Your task to perform on an android device: add a contact Image 0: 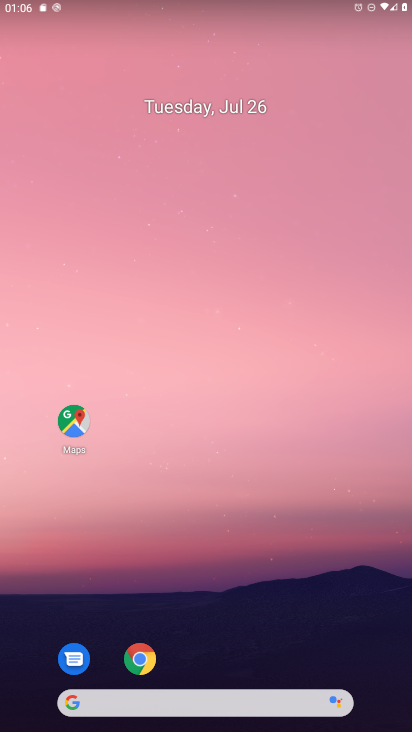
Step 0: drag from (208, 546) to (250, 71)
Your task to perform on an android device: add a contact Image 1: 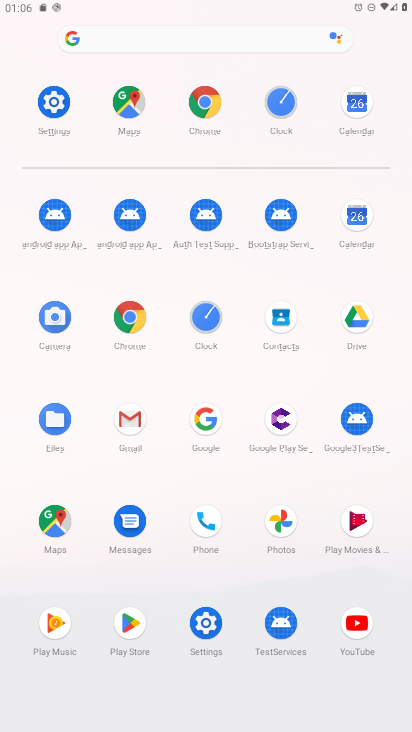
Step 1: click (199, 529)
Your task to perform on an android device: add a contact Image 2: 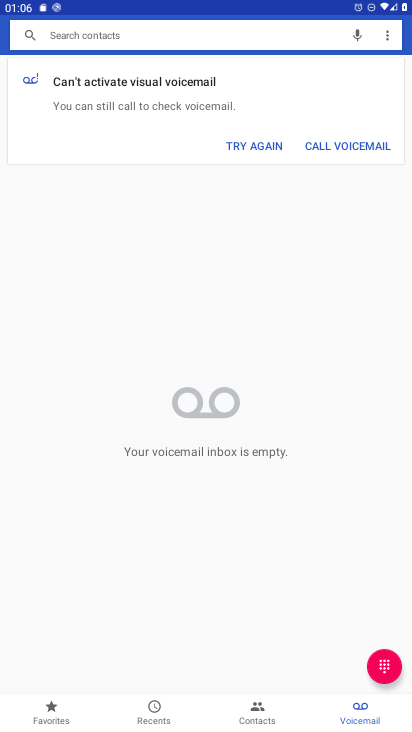
Step 2: click (382, 660)
Your task to perform on an android device: add a contact Image 3: 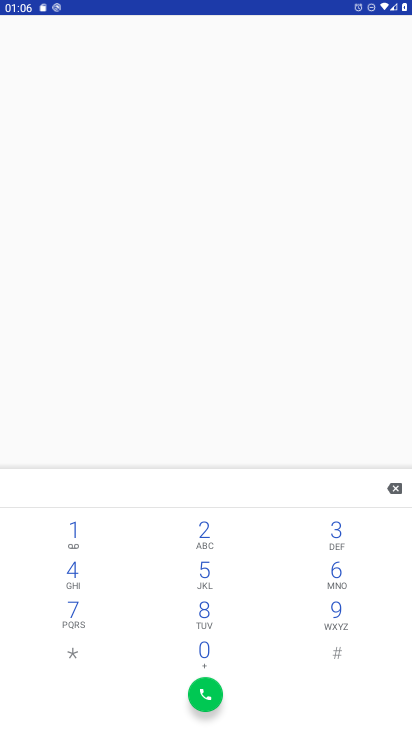
Step 3: press back button
Your task to perform on an android device: add a contact Image 4: 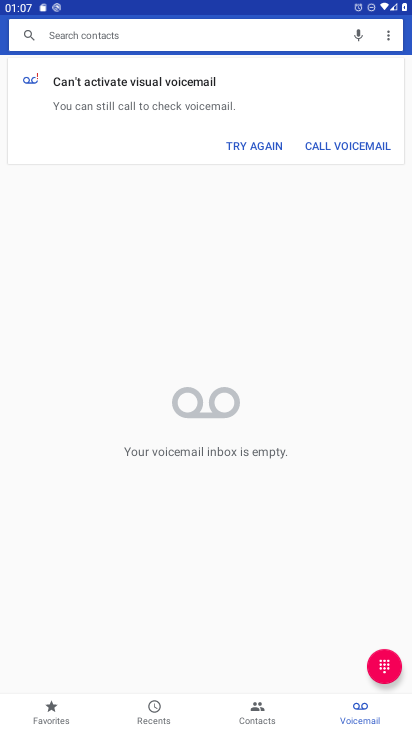
Step 4: click (256, 711)
Your task to perform on an android device: add a contact Image 5: 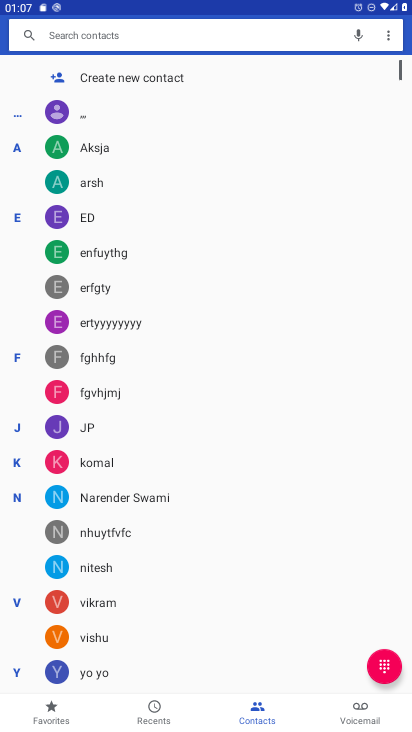
Step 5: click (381, 663)
Your task to perform on an android device: add a contact Image 6: 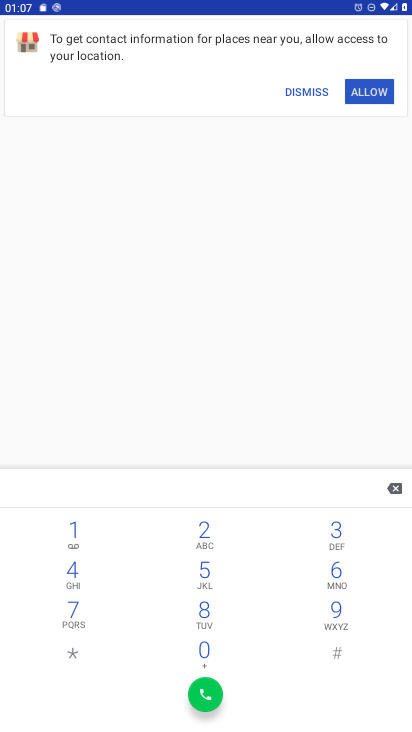
Step 6: click (344, 564)
Your task to perform on an android device: add a contact Image 7: 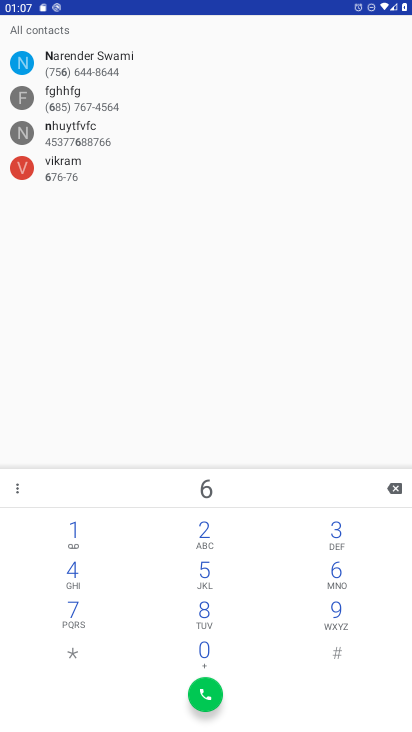
Step 7: click (215, 566)
Your task to perform on an android device: add a contact Image 8: 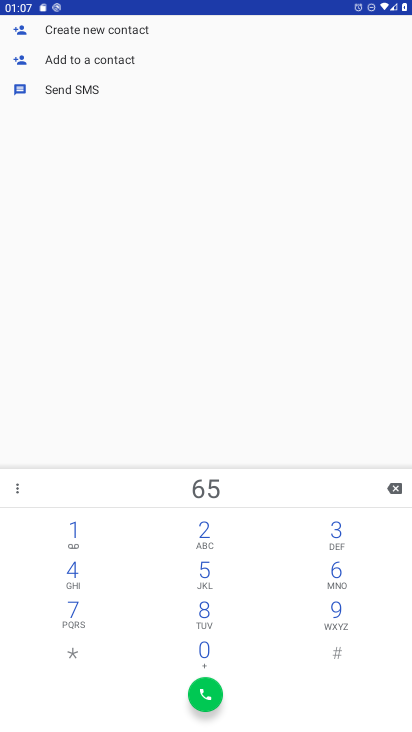
Step 8: click (127, 31)
Your task to perform on an android device: add a contact Image 9: 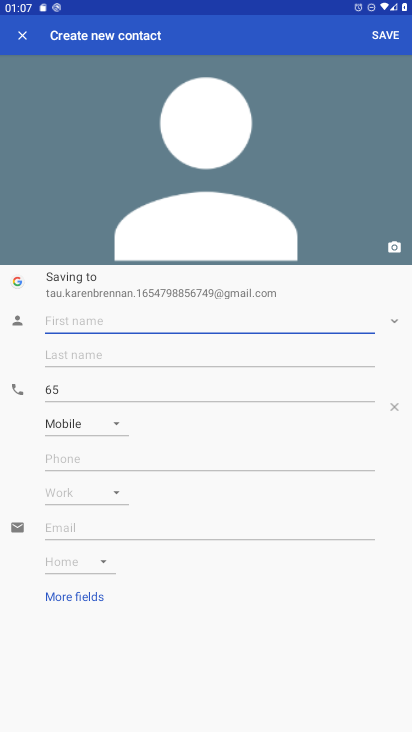
Step 9: type "hhh"
Your task to perform on an android device: add a contact Image 10: 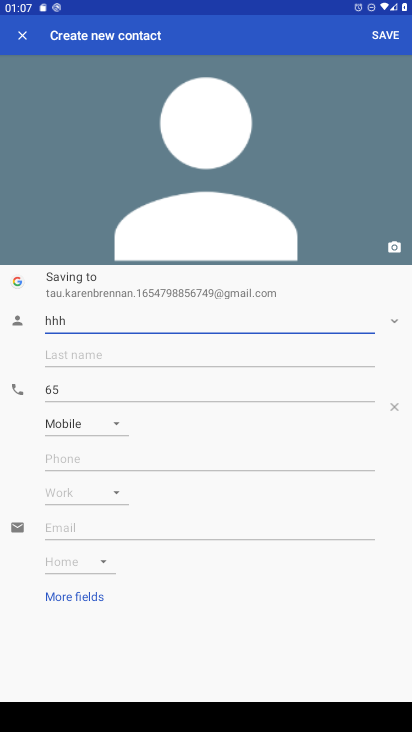
Step 10: click (393, 26)
Your task to perform on an android device: add a contact Image 11: 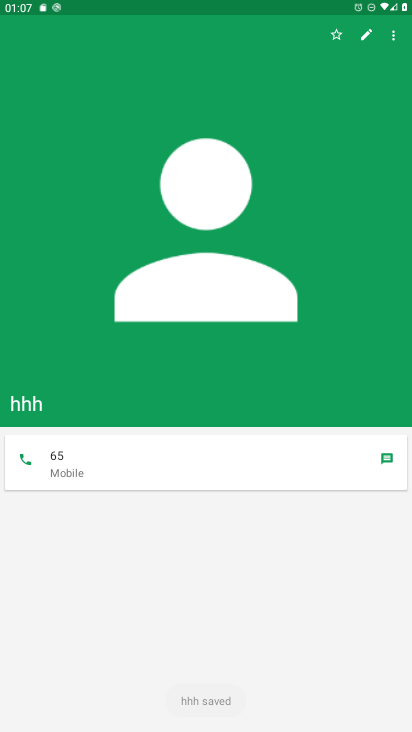
Step 11: task complete